Your task to perform on an android device: delete browsing data in the chrome app Image 0: 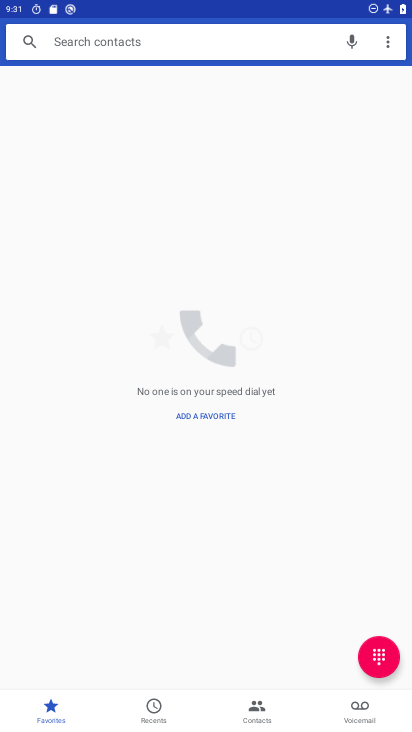
Step 0: press home button
Your task to perform on an android device: delete browsing data in the chrome app Image 1: 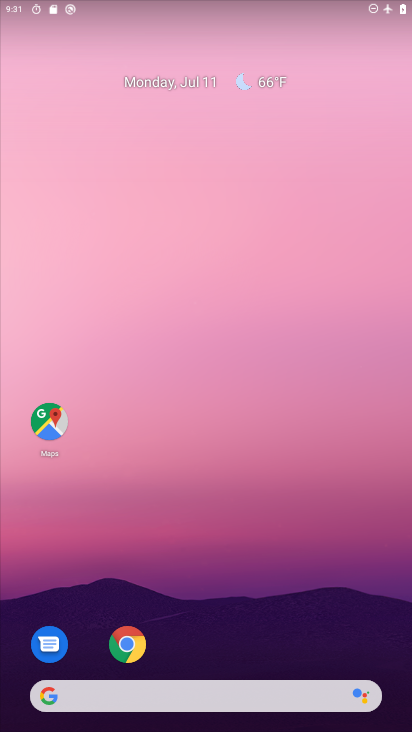
Step 1: drag from (274, 626) to (283, 66)
Your task to perform on an android device: delete browsing data in the chrome app Image 2: 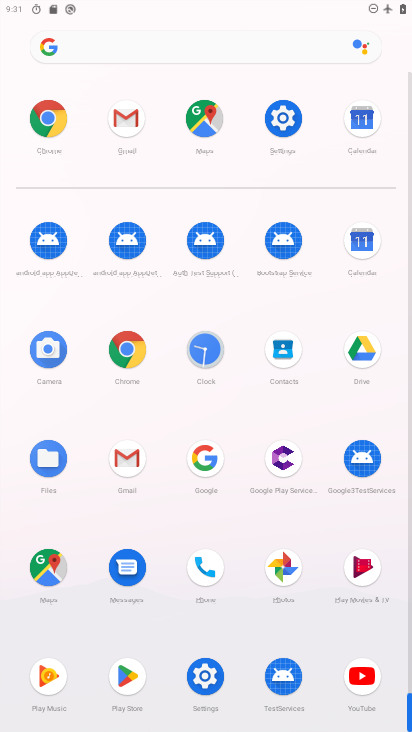
Step 2: click (136, 351)
Your task to perform on an android device: delete browsing data in the chrome app Image 3: 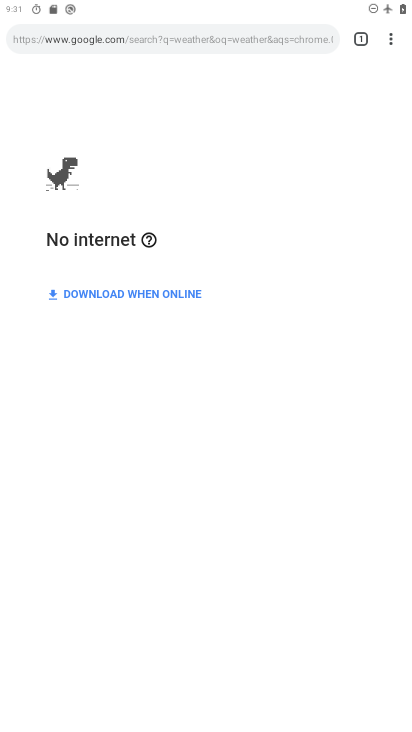
Step 3: drag from (393, 35) to (257, 273)
Your task to perform on an android device: delete browsing data in the chrome app Image 4: 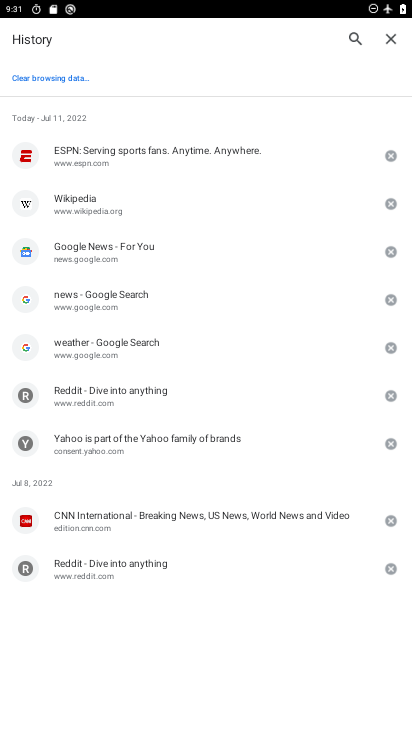
Step 4: click (71, 76)
Your task to perform on an android device: delete browsing data in the chrome app Image 5: 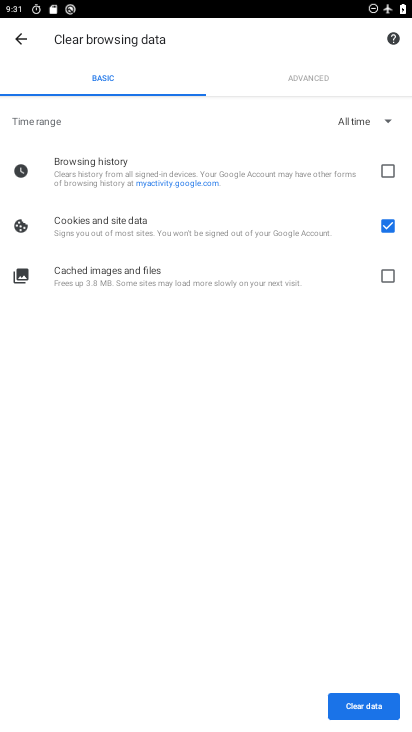
Step 5: click (390, 162)
Your task to perform on an android device: delete browsing data in the chrome app Image 6: 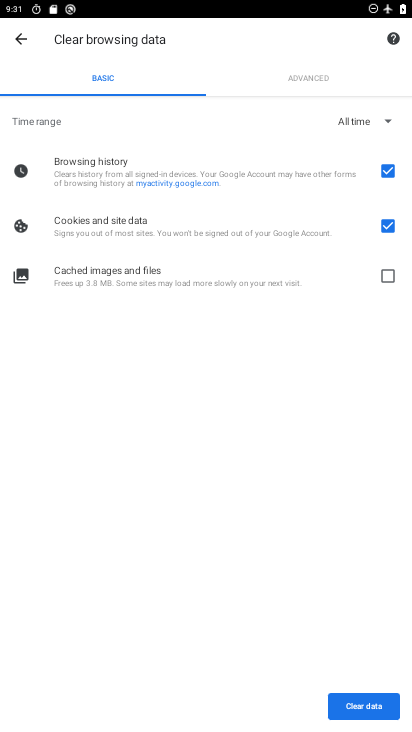
Step 6: click (389, 272)
Your task to perform on an android device: delete browsing data in the chrome app Image 7: 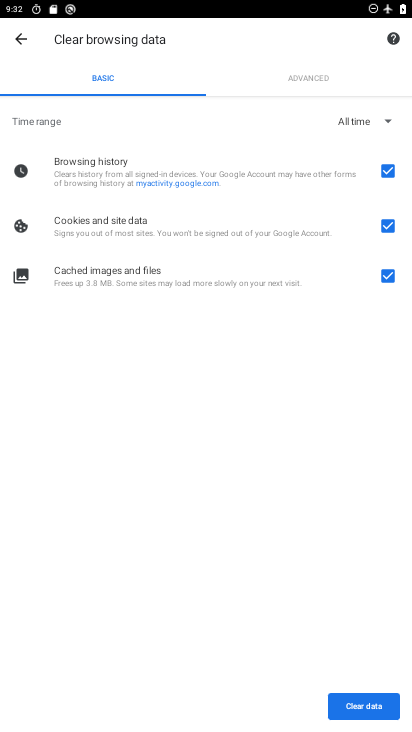
Step 7: click (365, 704)
Your task to perform on an android device: delete browsing data in the chrome app Image 8: 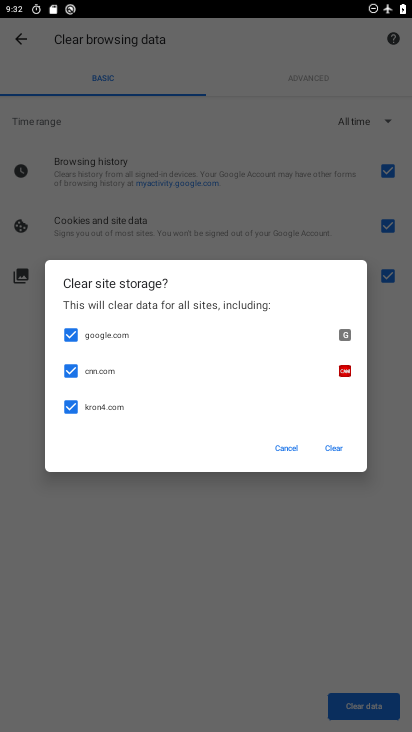
Step 8: click (339, 449)
Your task to perform on an android device: delete browsing data in the chrome app Image 9: 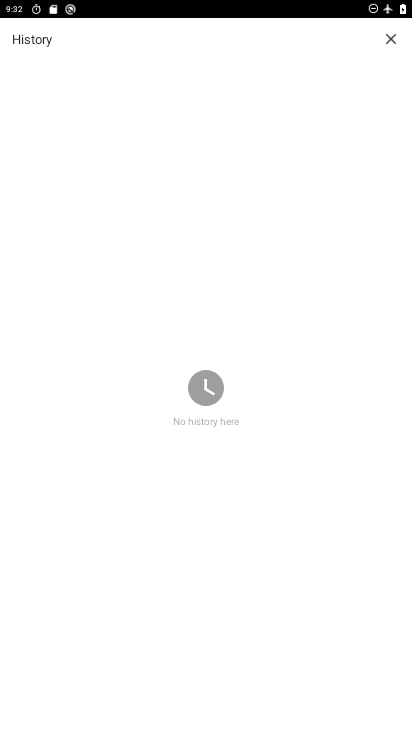
Step 9: task complete